Your task to perform on an android device: Open the calendar app, open the side menu, and click the "Day" option Image 0: 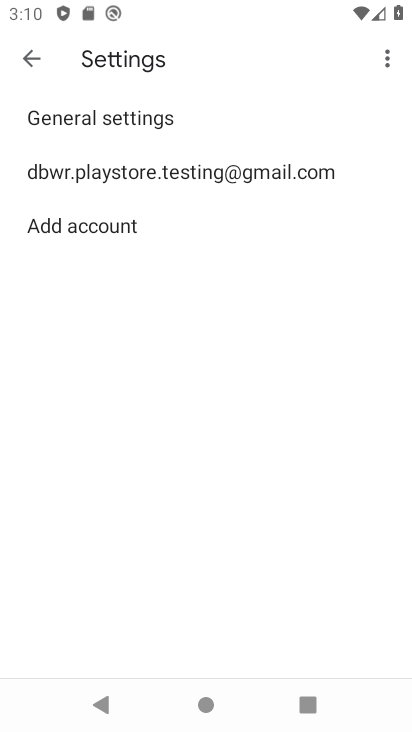
Step 0: drag from (203, 561) to (118, 134)
Your task to perform on an android device: Open the calendar app, open the side menu, and click the "Day" option Image 1: 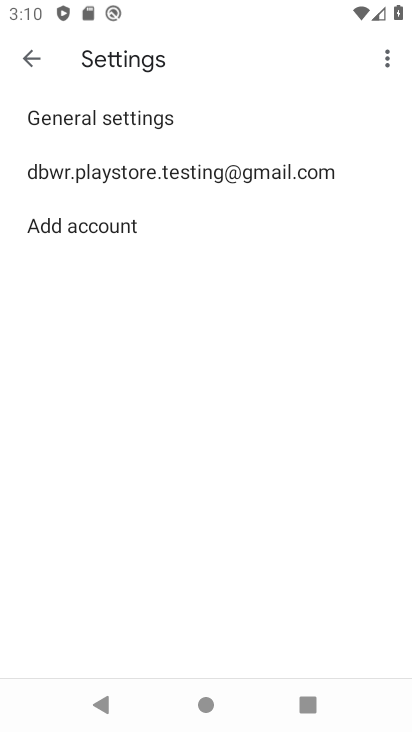
Step 1: click (238, 715)
Your task to perform on an android device: Open the calendar app, open the side menu, and click the "Day" option Image 2: 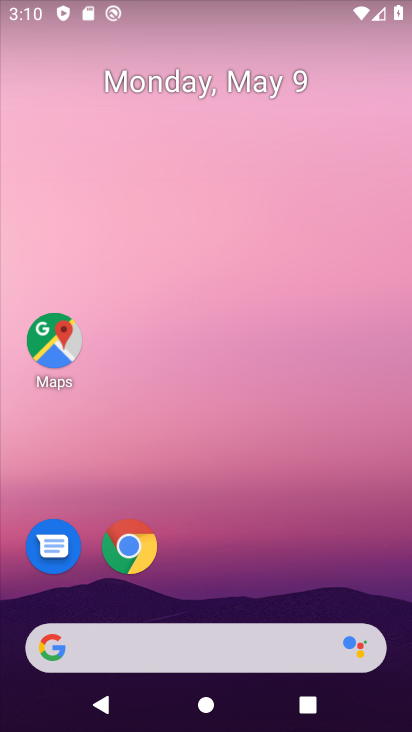
Step 2: drag from (235, 506) to (198, 150)
Your task to perform on an android device: Open the calendar app, open the side menu, and click the "Day" option Image 3: 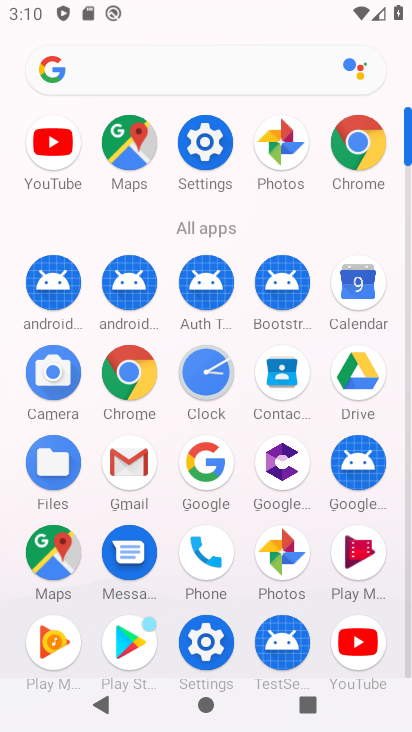
Step 3: click (364, 278)
Your task to perform on an android device: Open the calendar app, open the side menu, and click the "Day" option Image 4: 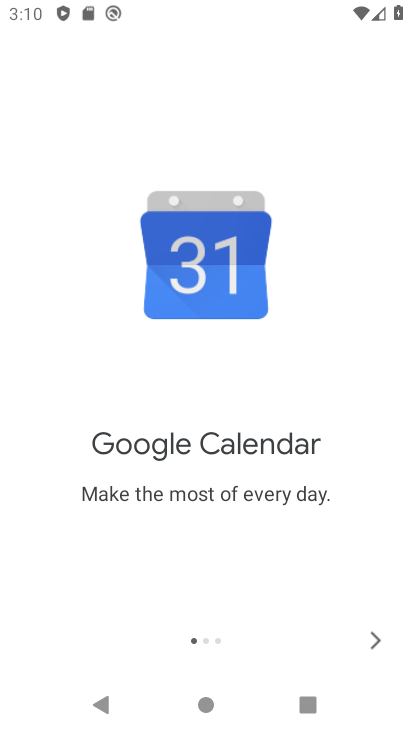
Step 4: click (376, 653)
Your task to perform on an android device: Open the calendar app, open the side menu, and click the "Day" option Image 5: 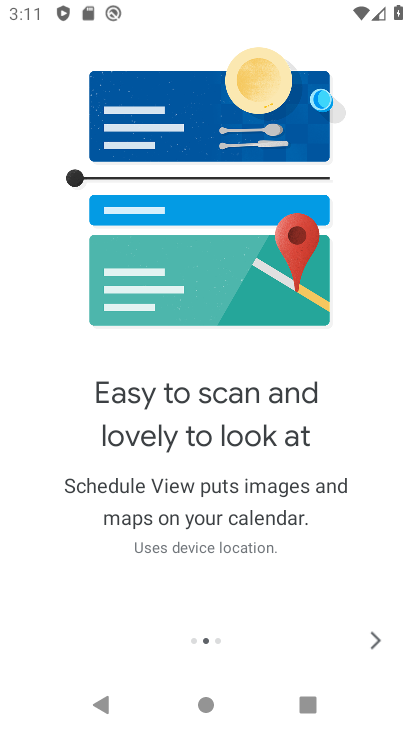
Step 5: click (355, 650)
Your task to perform on an android device: Open the calendar app, open the side menu, and click the "Day" option Image 6: 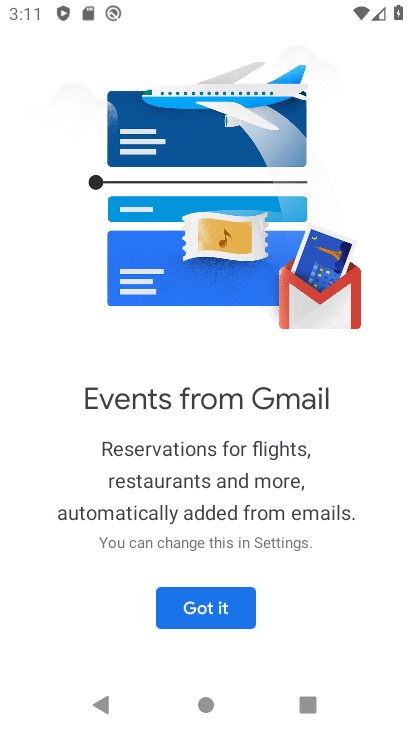
Step 6: click (231, 620)
Your task to perform on an android device: Open the calendar app, open the side menu, and click the "Day" option Image 7: 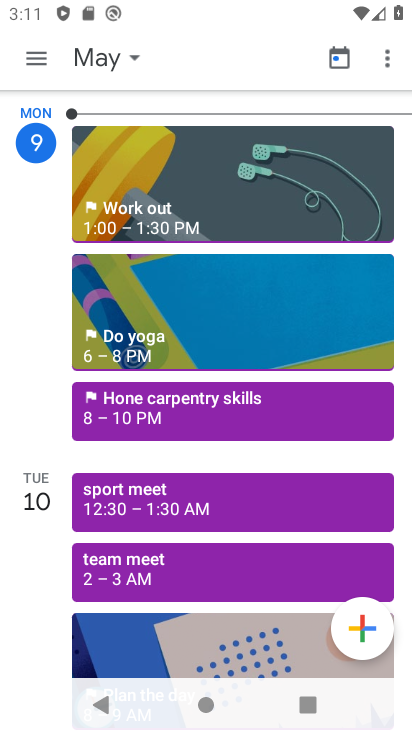
Step 7: click (39, 62)
Your task to perform on an android device: Open the calendar app, open the side menu, and click the "Day" option Image 8: 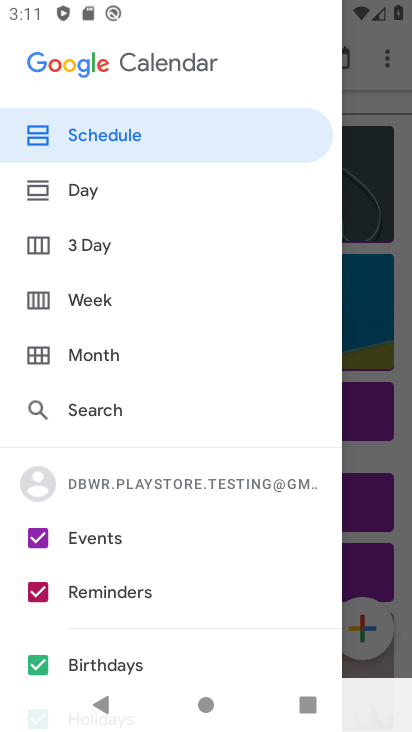
Step 8: task complete